Your task to perform on an android device: stop showing notifications on the lock screen Image 0: 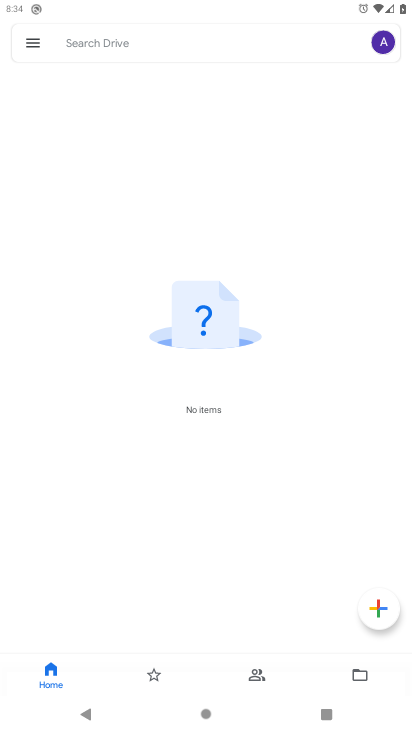
Step 0: press home button
Your task to perform on an android device: stop showing notifications on the lock screen Image 1: 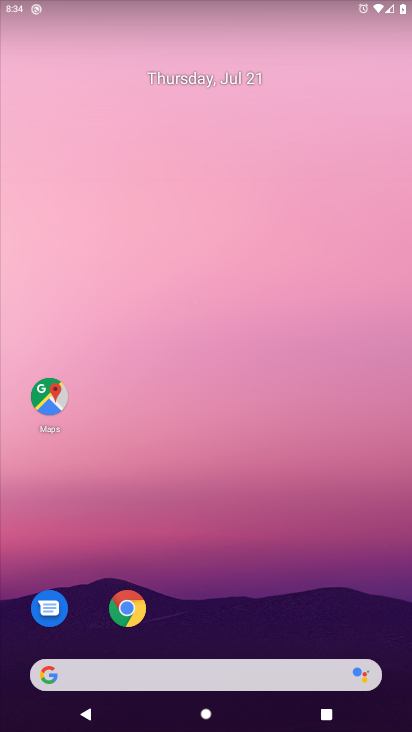
Step 1: drag from (30, 702) to (261, 230)
Your task to perform on an android device: stop showing notifications on the lock screen Image 2: 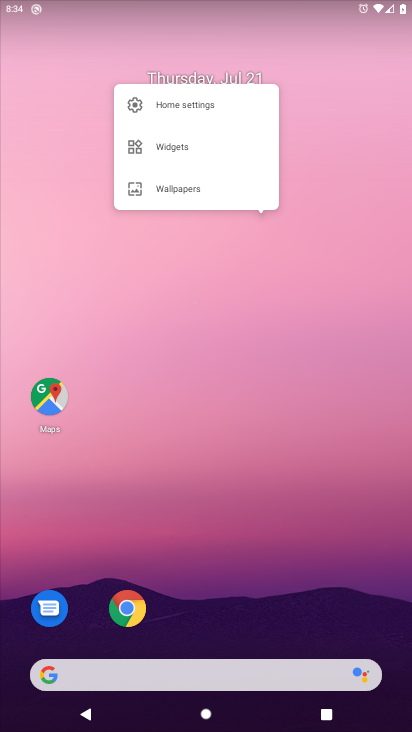
Step 2: drag from (25, 702) to (288, 91)
Your task to perform on an android device: stop showing notifications on the lock screen Image 3: 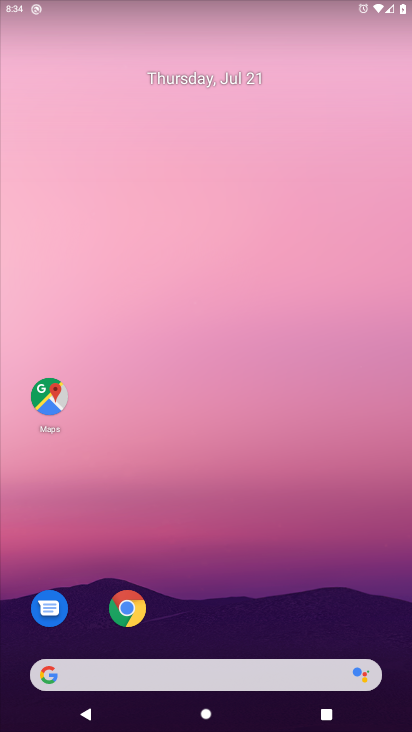
Step 3: drag from (15, 705) to (229, 99)
Your task to perform on an android device: stop showing notifications on the lock screen Image 4: 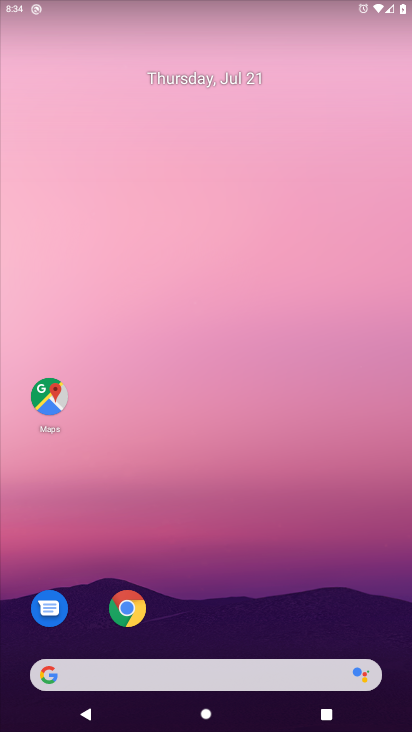
Step 4: drag from (30, 699) to (236, 0)
Your task to perform on an android device: stop showing notifications on the lock screen Image 5: 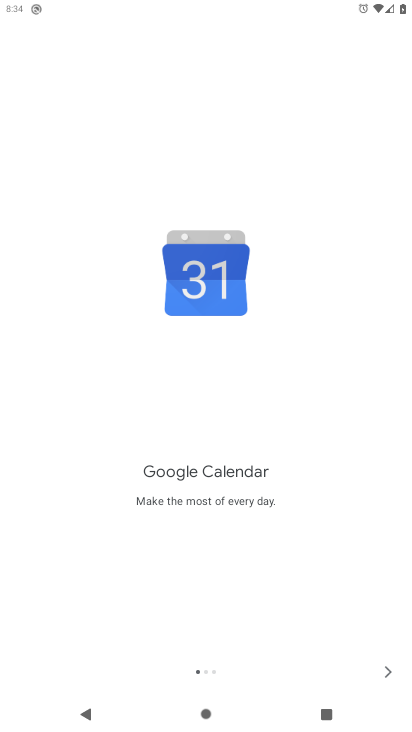
Step 5: press home button
Your task to perform on an android device: stop showing notifications on the lock screen Image 6: 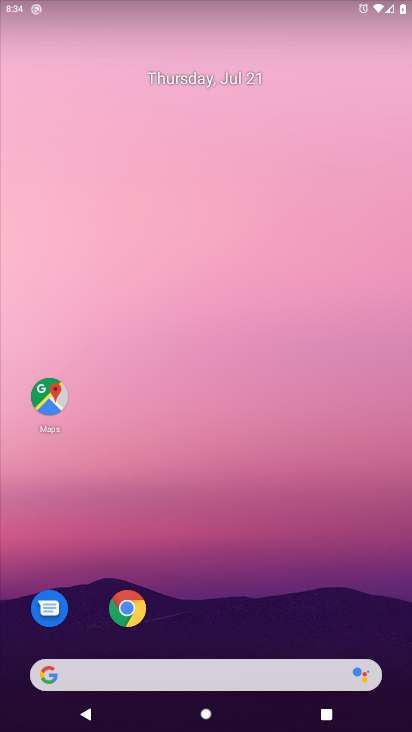
Step 6: drag from (18, 700) to (303, 31)
Your task to perform on an android device: stop showing notifications on the lock screen Image 7: 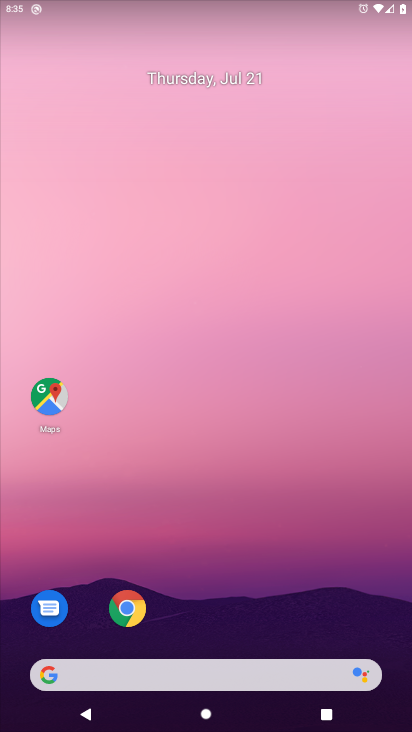
Step 7: drag from (7, 693) to (266, 104)
Your task to perform on an android device: stop showing notifications on the lock screen Image 8: 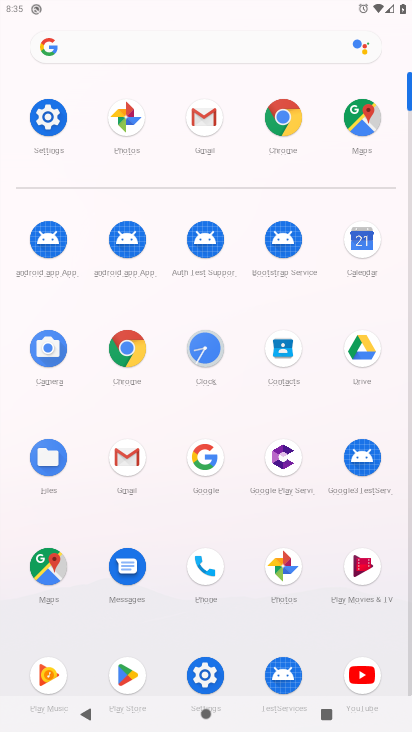
Step 8: click (207, 672)
Your task to perform on an android device: stop showing notifications on the lock screen Image 9: 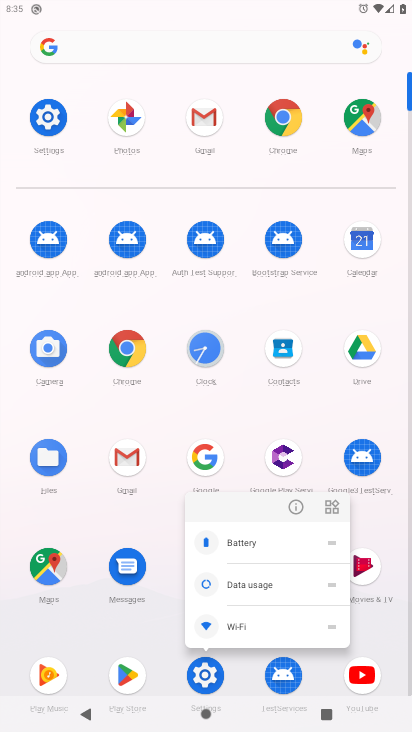
Step 9: click (204, 679)
Your task to perform on an android device: stop showing notifications on the lock screen Image 10: 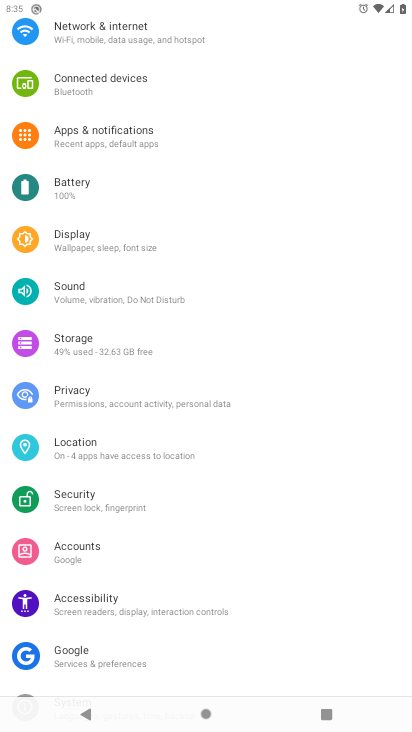
Step 10: click (158, 135)
Your task to perform on an android device: stop showing notifications on the lock screen Image 11: 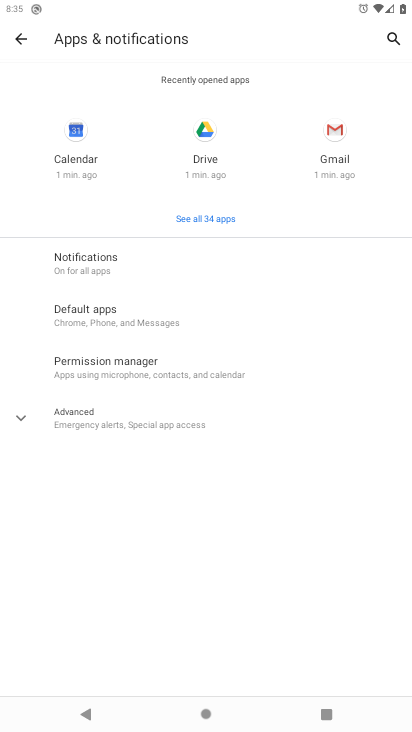
Step 11: click (95, 404)
Your task to perform on an android device: stop showing notifications on the lock screen Image 12: 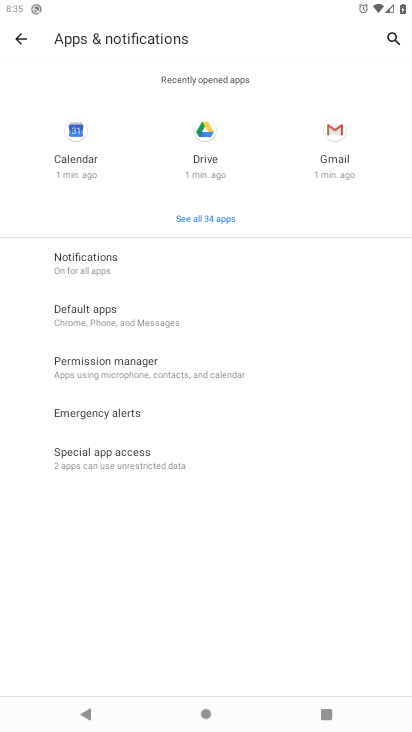
Step 12: click (97, 462)
Your task to perform on an android device: stop showing notifications on the lock screen Image 13: 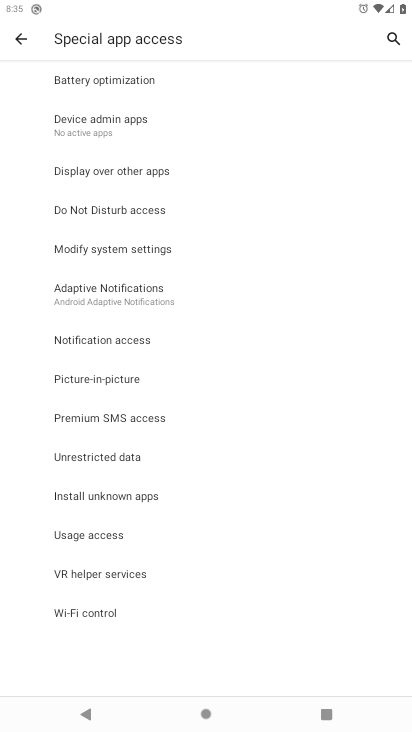
Step 13: click (18, 36)
Your task to perform on an android device: stop showing notifications on the lock screen Image 14: 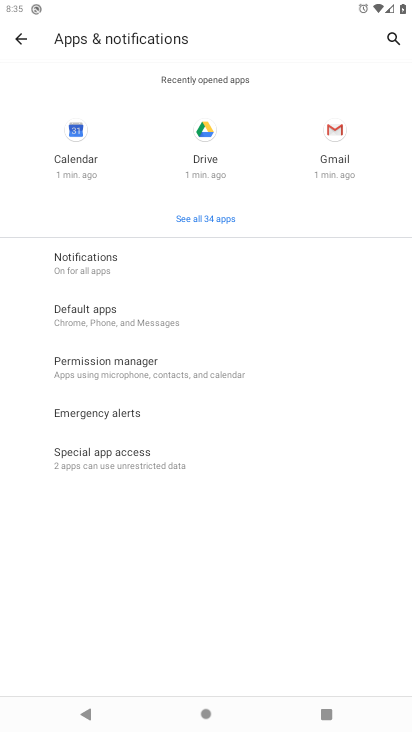
Step 14: click (75, 260)
Your task to perform on an android device: stop showing notifications on the lock screen Image 15: 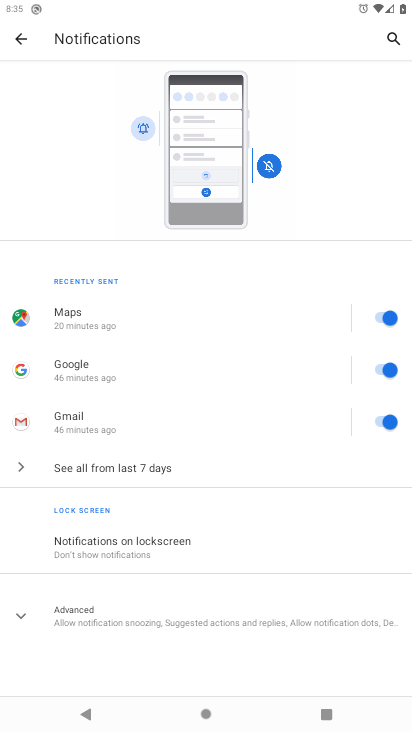
Step 15: click (114, 592)
Your task to perform on an android device: stop showing notifications on the lock screen Image 16: 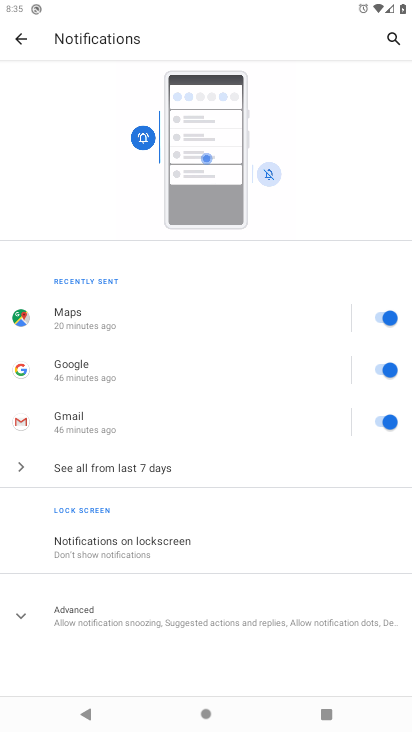
Step 16: click (62, 612)
Your task to perform on an android device: stop showing notifications on the lock screen Image 17: 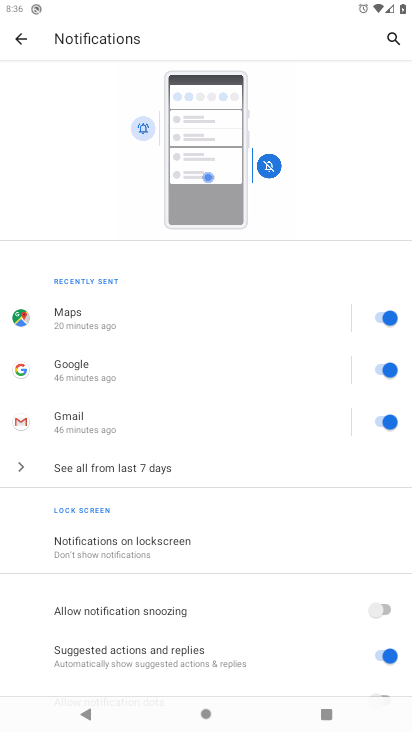
Step 17: task complete